Your task to perform on an android device: turn on showing notifications on the lock screen Image 0: 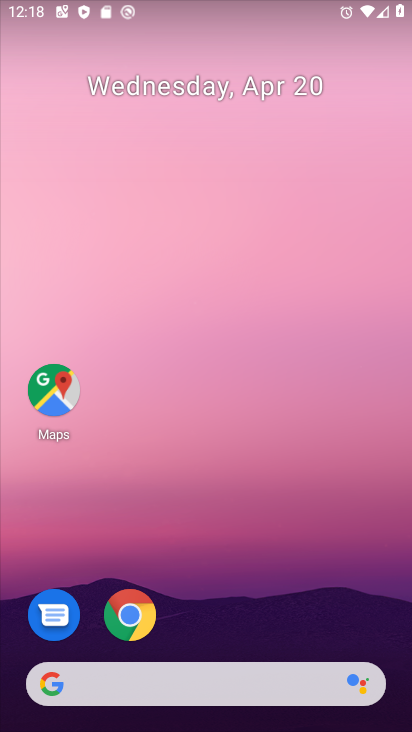
Step 0: drag from (376, 533) to (389, 153)
Your task to perform on an android device: turn on showing notifications on the lock screen Image 1: 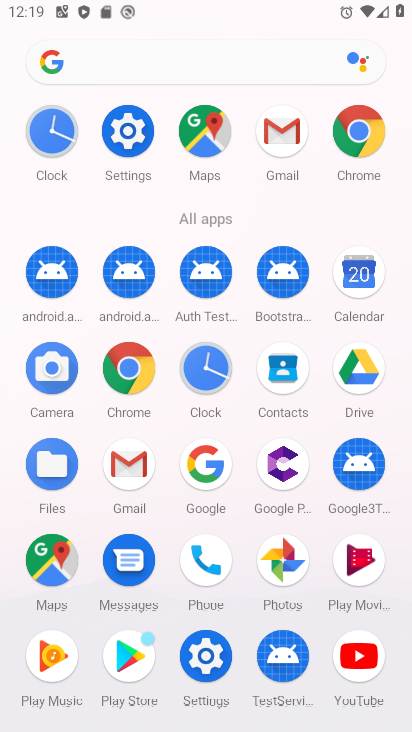
Step 1: click (126, 140)
Your task to perform on an android device: turn on showing notifications on the lock screen Image 2: 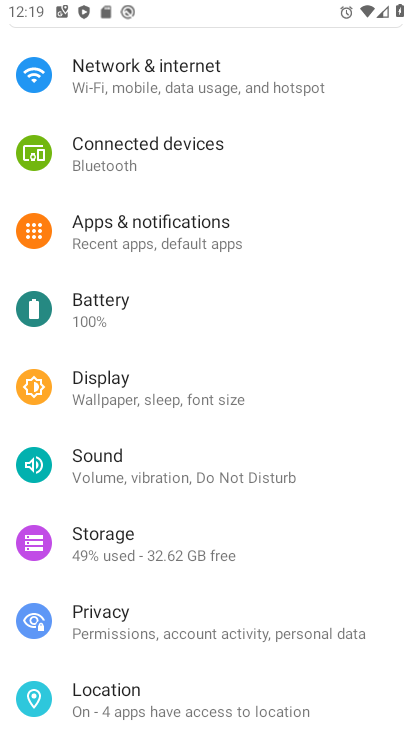
Step 2: drag from (377, 536) to (372, 343)
Your task to perform on an android device: turn on showing notifications on the lock screen Image 3: 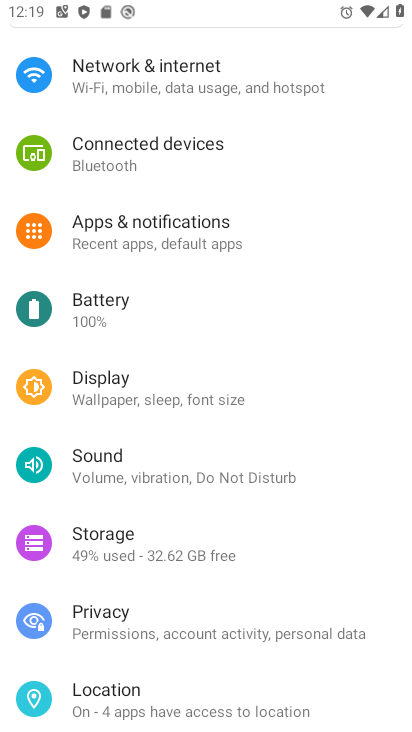
Step 3: click (145, 234)
Your task to perform on an android device: turn on showing notifications on the lock screen Image 4: 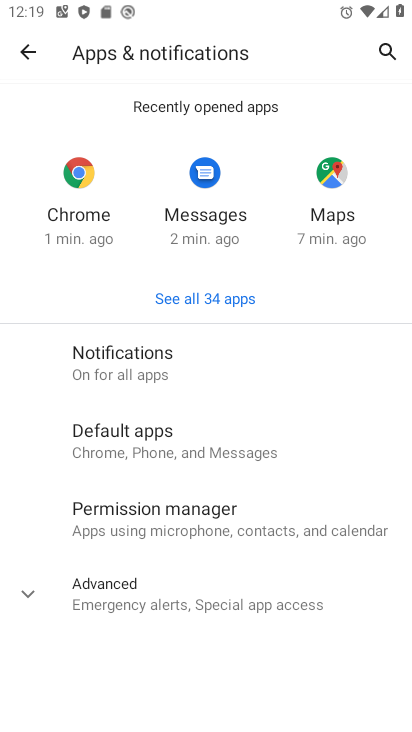
Step 4: drag from (382, 634) to (369, 300)
Your task to perform on an android device: turn on showing notifications on the lock screen Image 5: 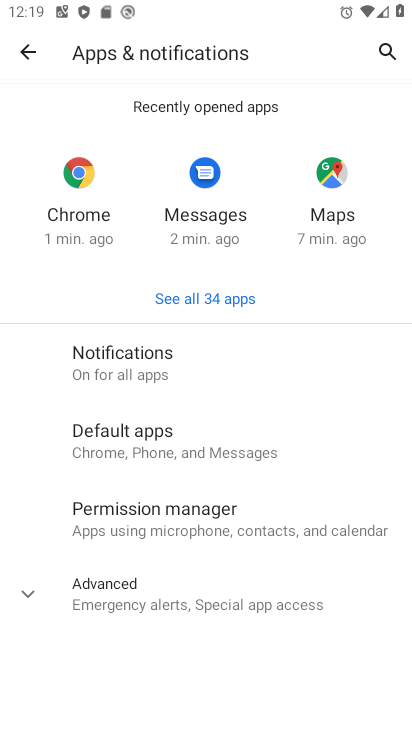
Step 5: click (104, 365)
Your task to perform on an android device: turn on showing notifications on the lock screen Image 6: 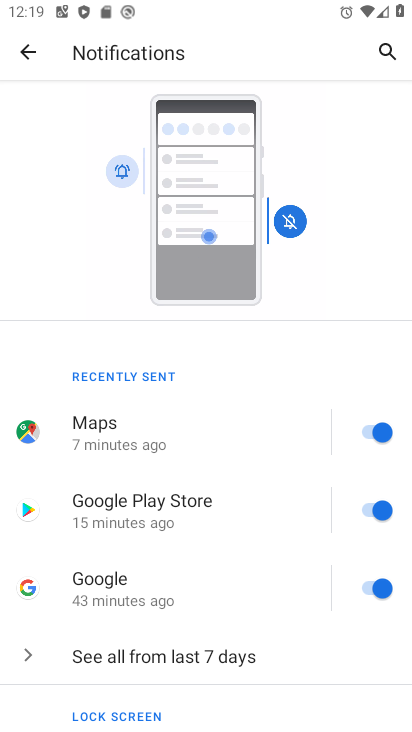
Step 6: drag from (285, 610) to (293, 284)
Your task to perform on an android device: turn on showing notifications on the lock screen Image 7: 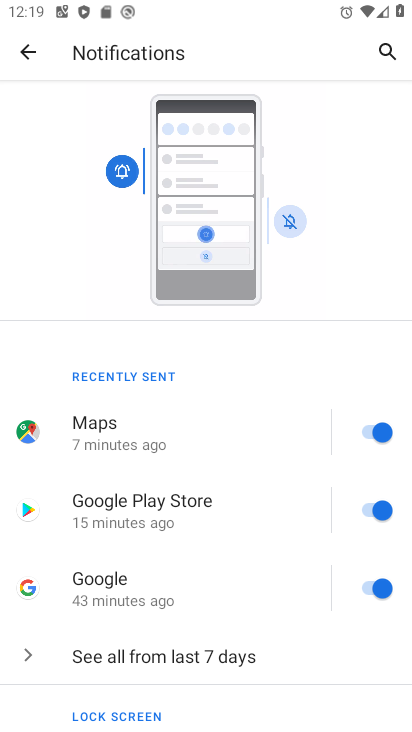
Step 7: drag from (327, 508) to (324, 194)
Your task to perform on an android device: turn on showing notifications on the lock screen Image 8: 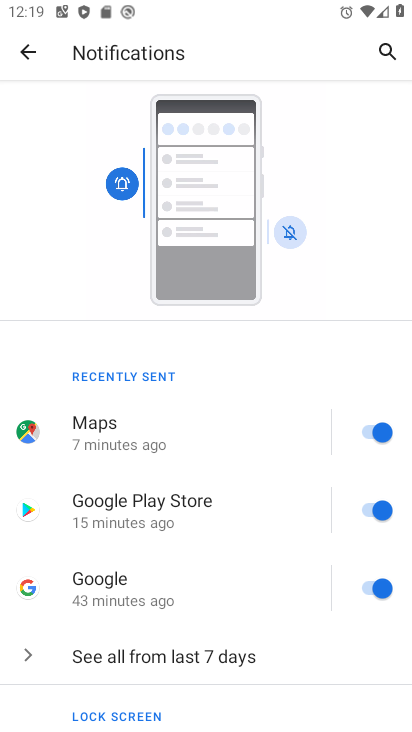
Step 8: drag from (334, 714) to (328, 324)
Your task to perform on an android device: turn on showing notifications on the lock screen Image 9: 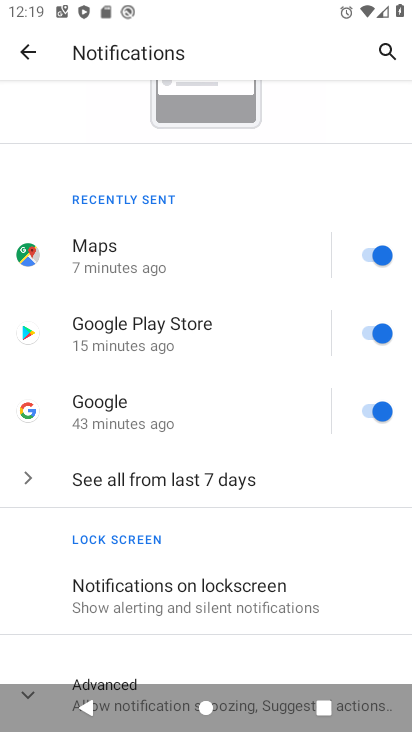
Step 9: drag from (337, 619) to (348, 247)
Your task to perform on an android device: turn on showing notifications on the lock screen Image 10: 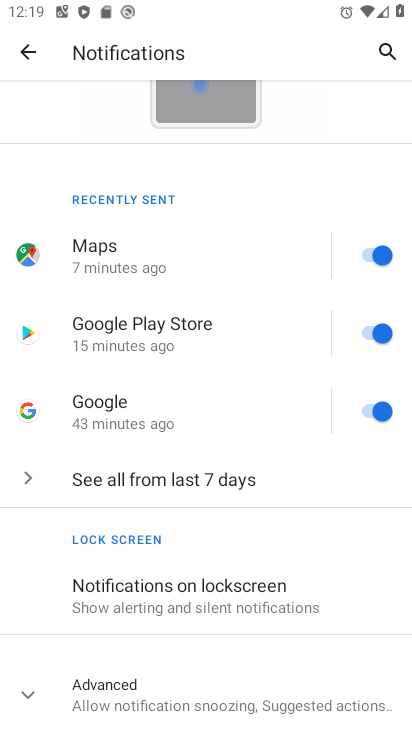
Step 10: click (138, 594)
Your task to perform on an android device: turn on showing notifications on the lock screen Image 11: 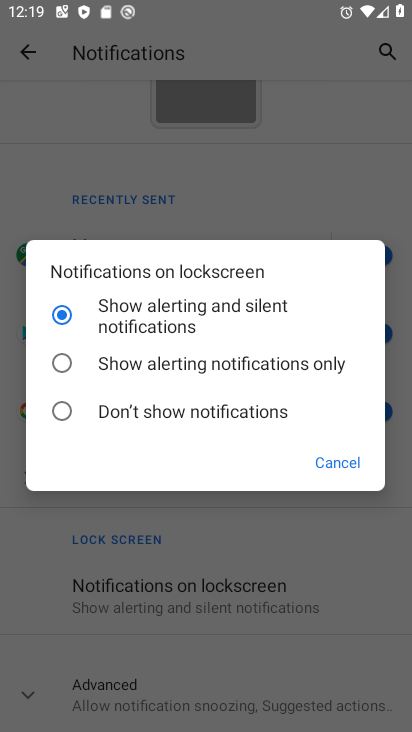
Step 11: click (61, 358)
Your task to perform on an android device: turn on showing notifications on the lock screen Image 12: 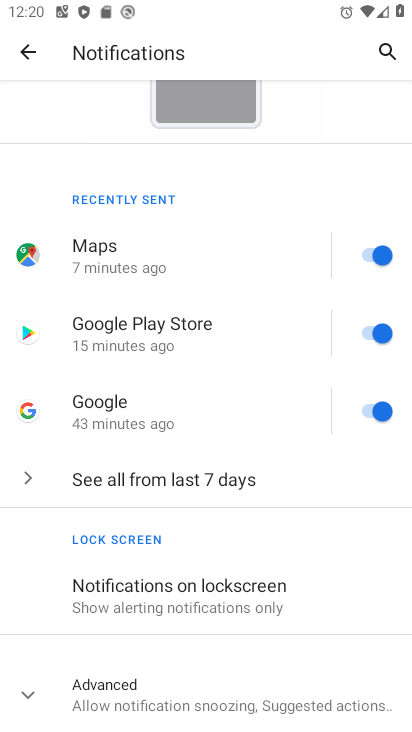
Step 12: task complete